Your task to perform on an android device: Do I have any events tomorrow? Image 0: 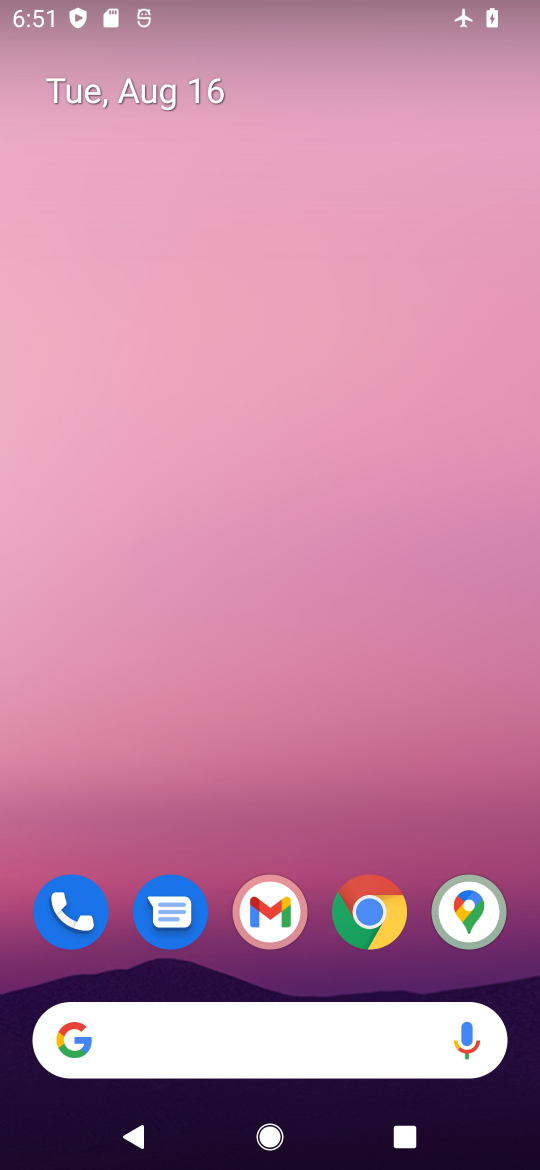
Step 0: drag from (411, 671) to (410, 171)
Your task to perform on an android device: Do I have any events tomorrow? Image 1: 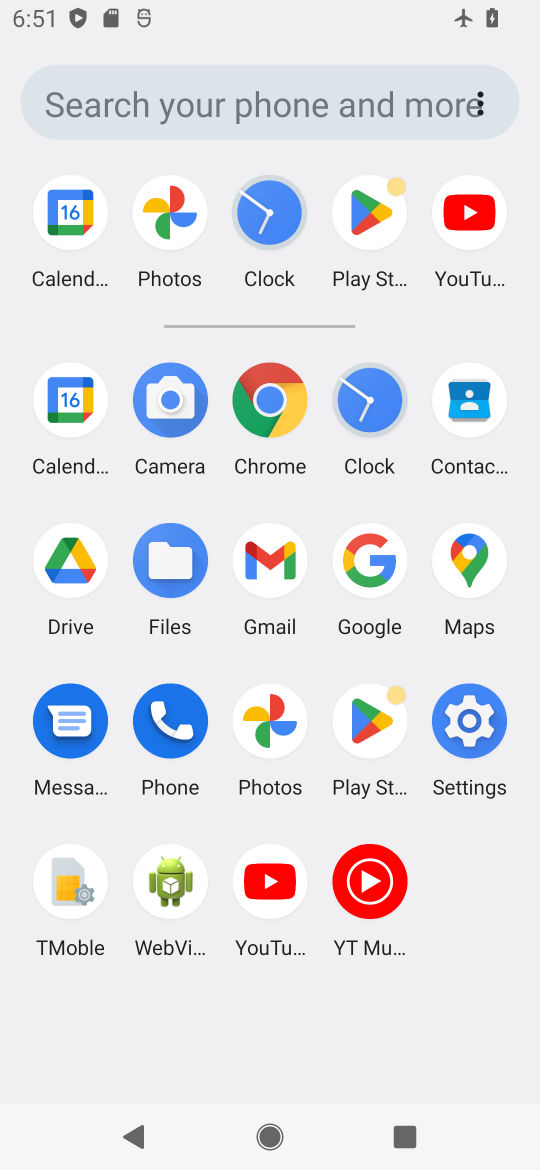
Step 1: click (68, 402)
Your task to perform on an android device: Do I have any events tomorrow? Image 2: 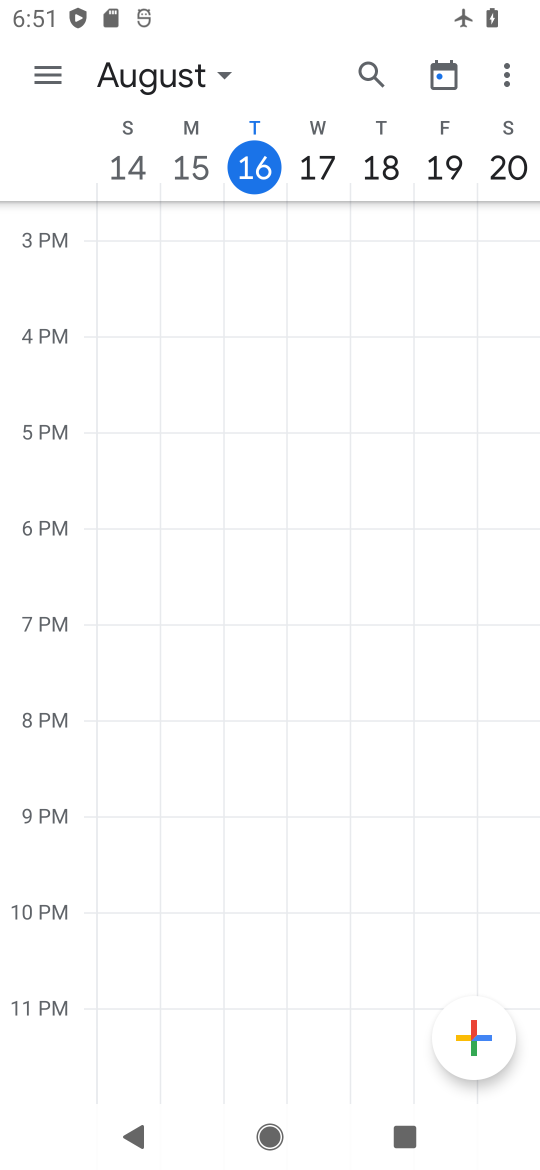
Step 2: click (60, 75)
Your task to perform on an android device: Do I have any events tomorrow? Image 3: 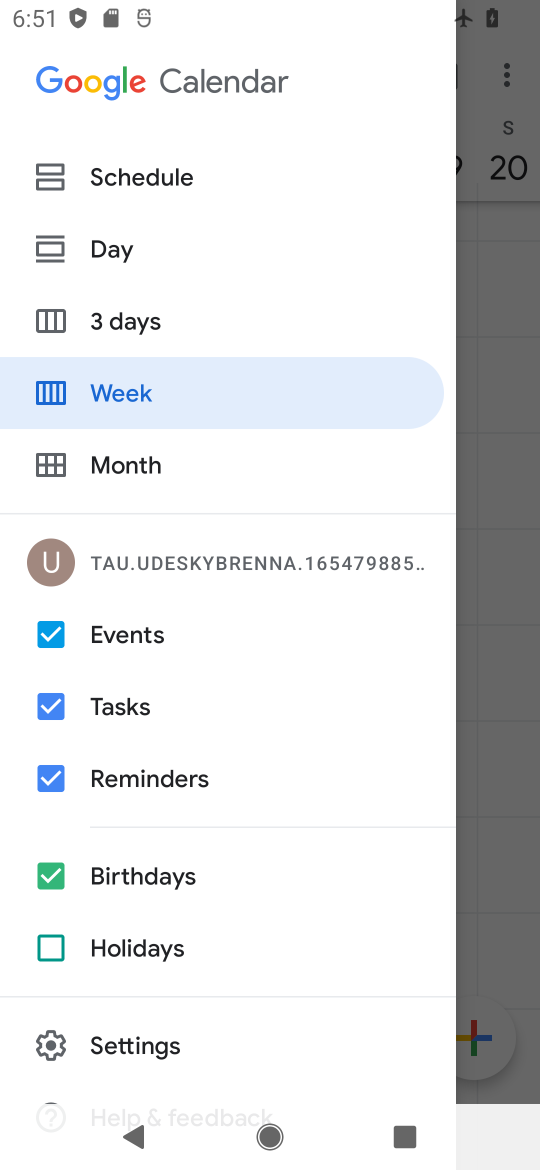
Step 3: click (116, 250)
Your task to perform on an android device: Do I have any events tomorrow? Image 4: 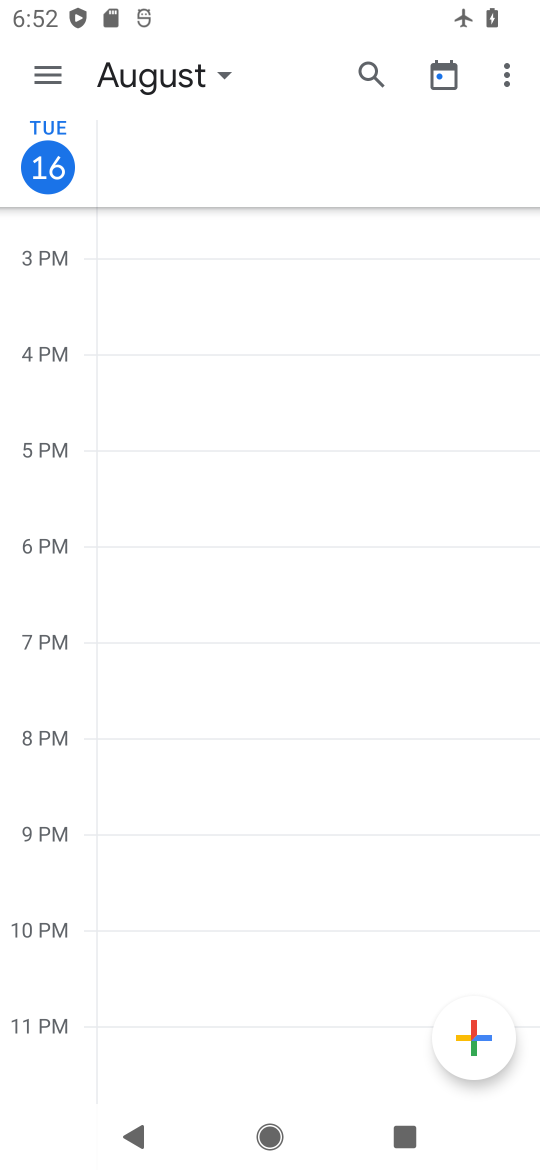
Step 4: click (226, 77)
Your task to perform on an android device: Do I have any events tomorrow? Image 5: 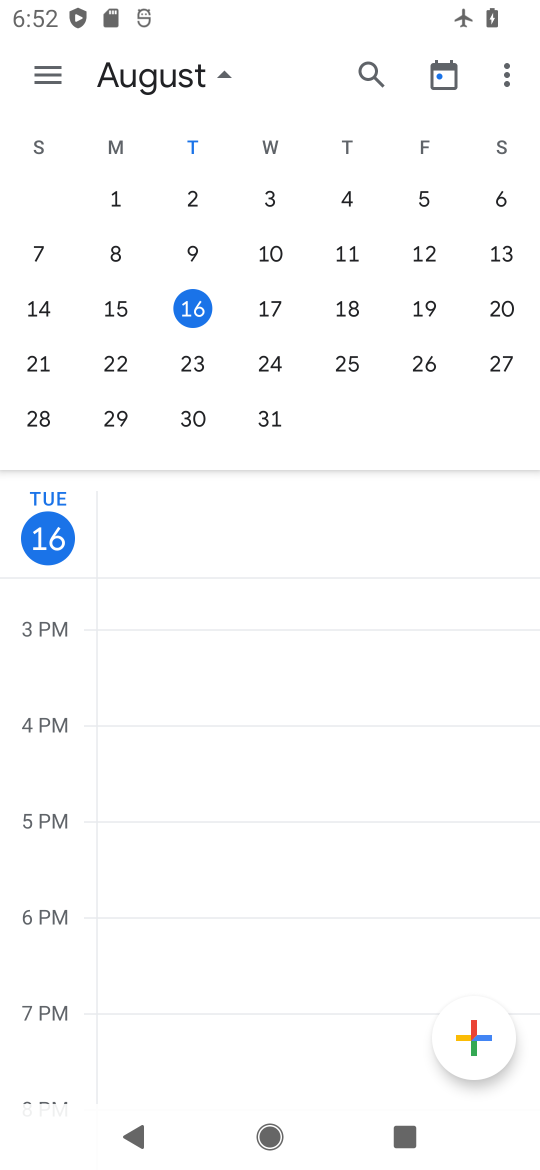
Step 5: click (272, 300)
Your task to perform on an android device: Do I have any events tomorrow? Image 6: 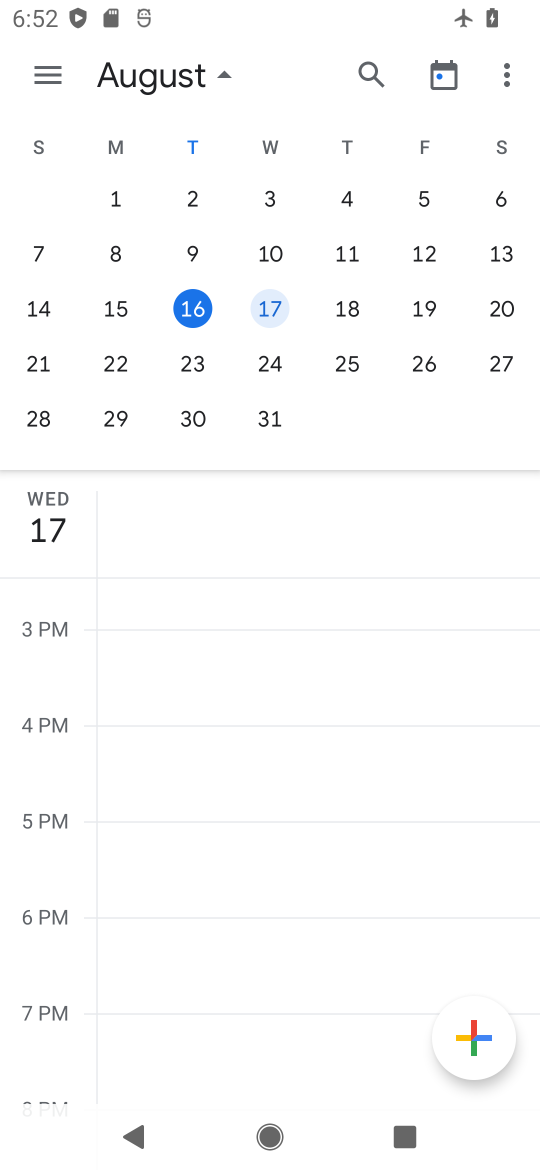
Step 6: task complete